Your task to perform on an android device: Open Google Chrome Image 0: 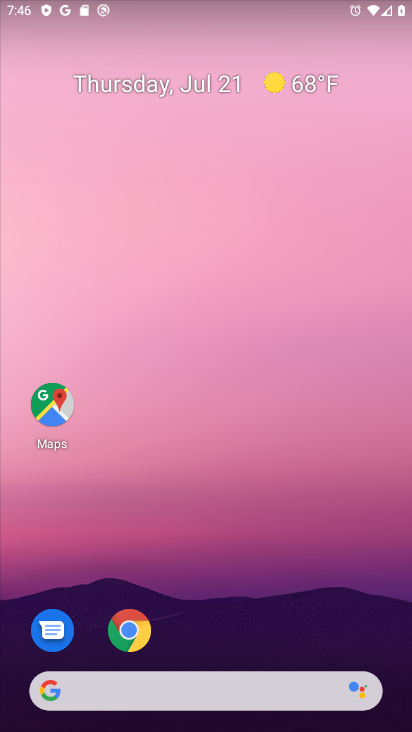
Step 0: drag from (275, 593) to (330, 0)
Your task to perform on an android device: Open Google Chrome Image 1: 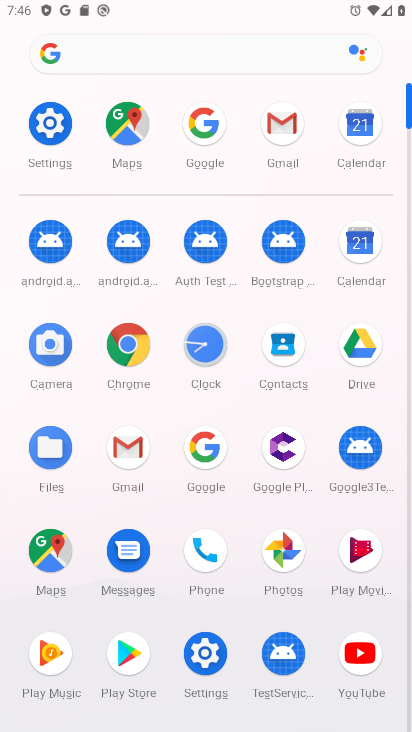
Step 1: click (113, 346)
Your task to perform on an android device: Open Google Chrome Image 2: 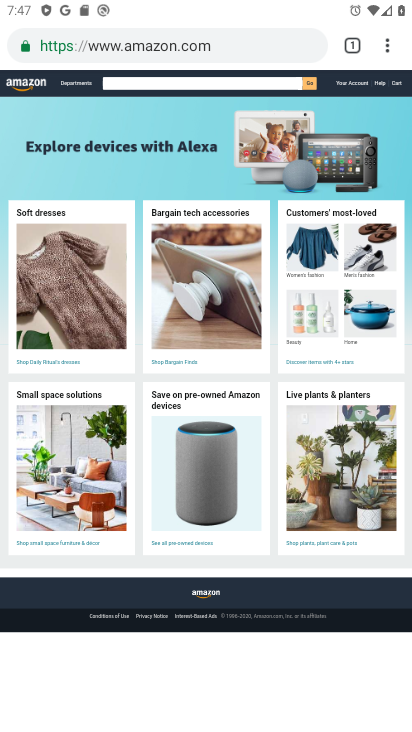
Step 2: task complete